Your task to perform on an android device: Do I have any events tomorrow? Image 0: 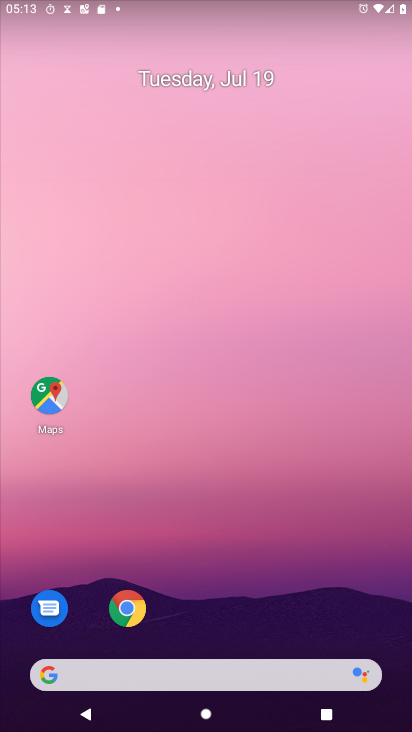
Step 0: drag from (235, 670) to (292, 148)
Your task to perform on an android device: Do I have any events tomorrow? Image 1: 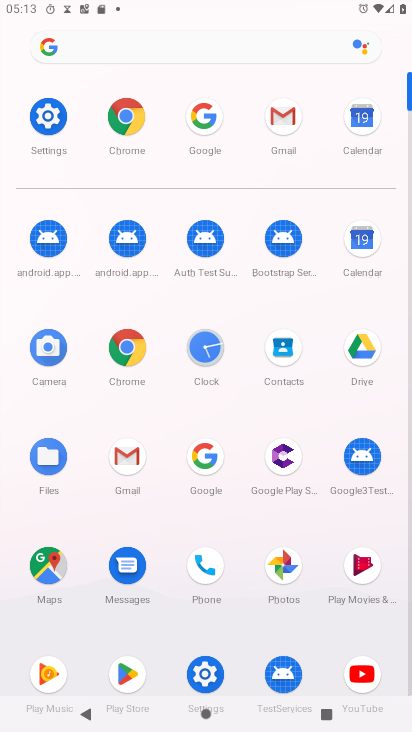
Step 1: click (364, 241)
Your task to perform on an android device: Do I have any events tomorrow? Image 2: 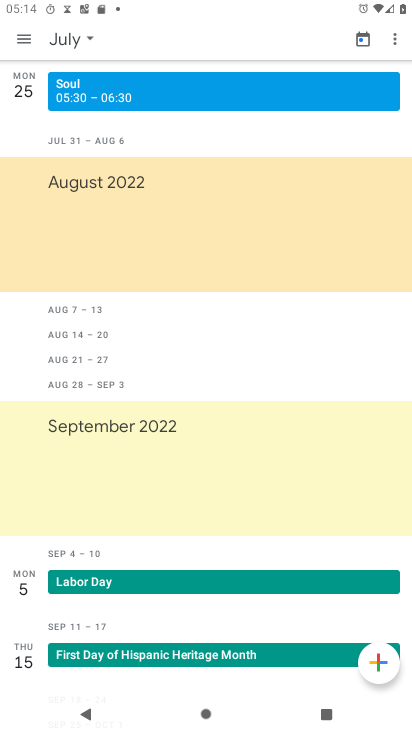
Step 2: click (365, 44)
Your task to perform on an android device: Do I have any events tomorrow? Image 3: 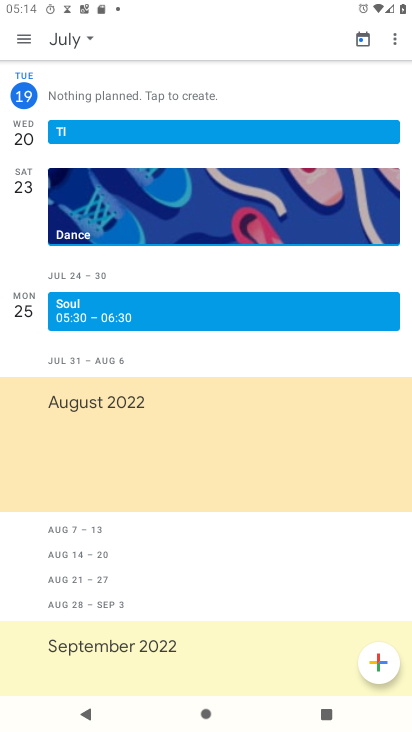
Step 3: click (87, 36)
Your task to perform on an android device: Do I have any events tomorrow? Image 4: 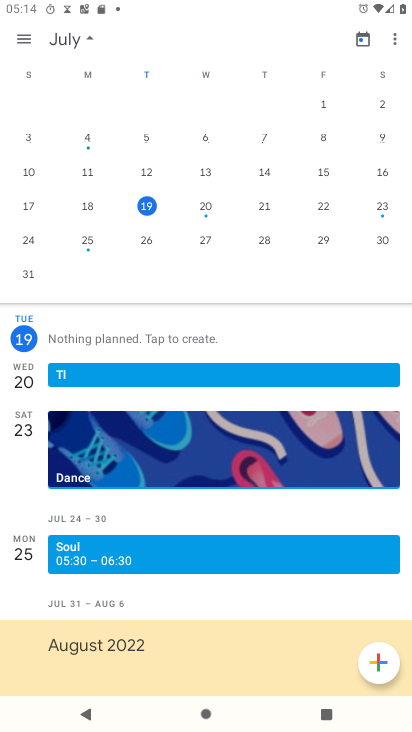
Step 4: click (203, 205)
Your task to perform on an android device: Do I have any events tomorrow? Image 5: 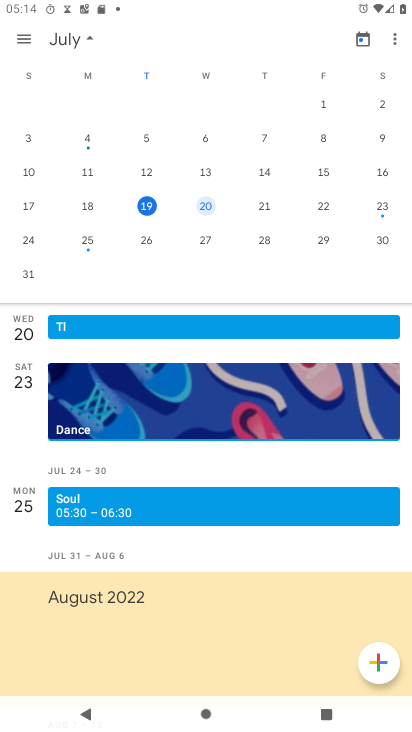
Step 5: click (23, 36)
Your task to perform on an android device: Do I have any events tomorrow? Image 6: 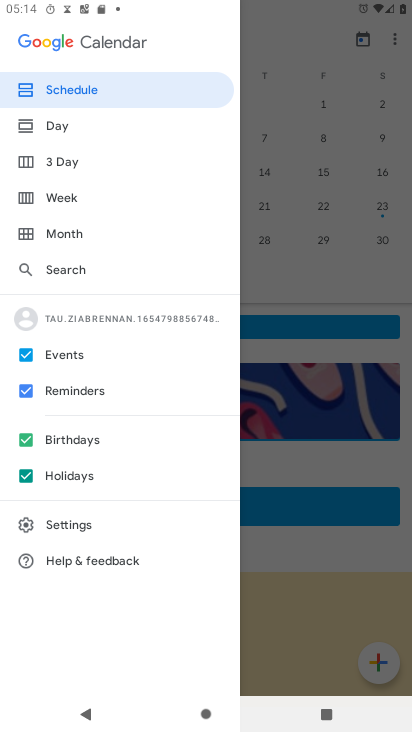
Step 6: click (59, 90)
Your task to perform on an android device: Do I have any events tomorrow? Image 7: 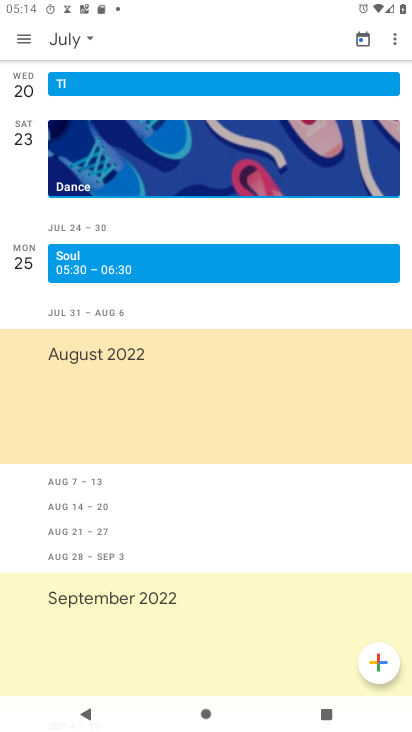
Step 7: task complete